Your task to perform on an android device: turn on showing notifications on the lock screen Image 0: 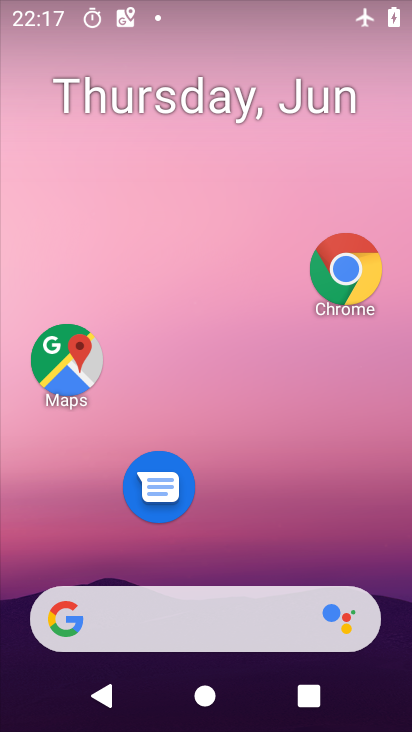
Step 0: drag from (228, 521) to (154, 35)
Your task to perform on an android device: turn on showing notifications on the lock screen Image 1: 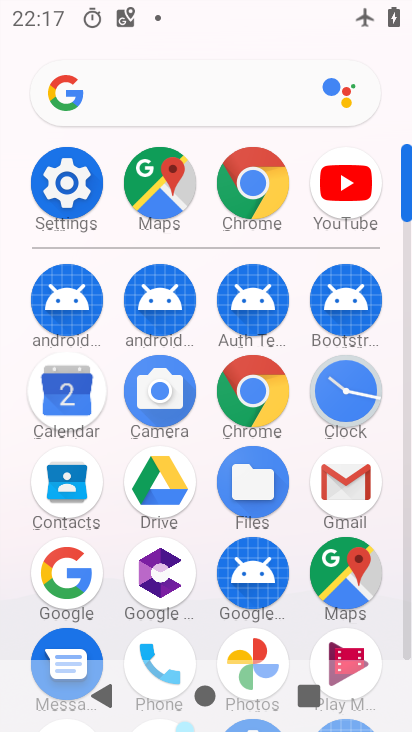
Step 1: click (72, 167)
Your task to perform on an android device: turn on showing notifications on the lock screen Image 2: 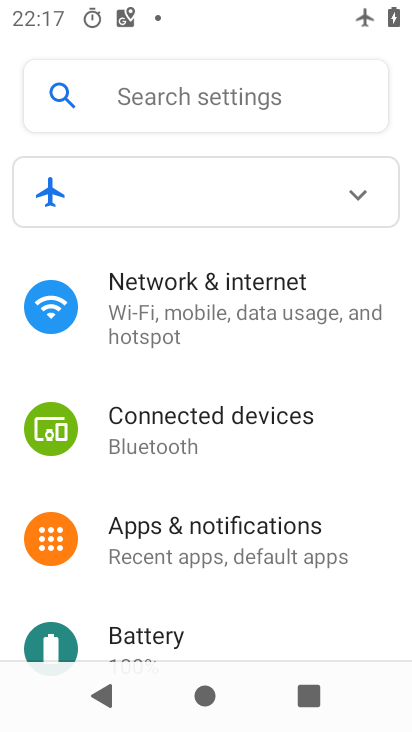
Step 2: click (176, 111)
Your task to perform on an android device: turn on showing notifications on the lock screen Image 3: 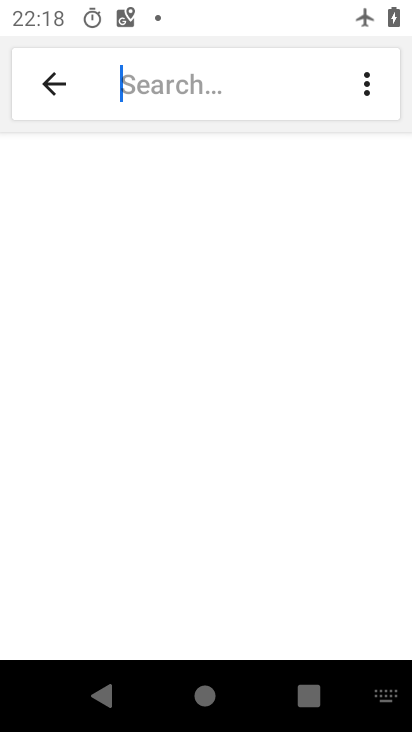
Step 3: click (57, 85)
Your task to perform on an android device: turn on showing notifications on the lock screen Image 4: 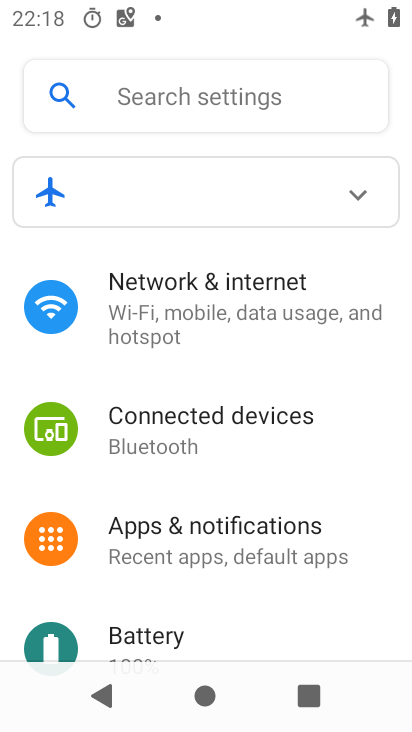
Step 4: drag from (213, 533) to (331, 57)
Your task to perform on an android device: turn on showing notifications on the lock screen Image 5: 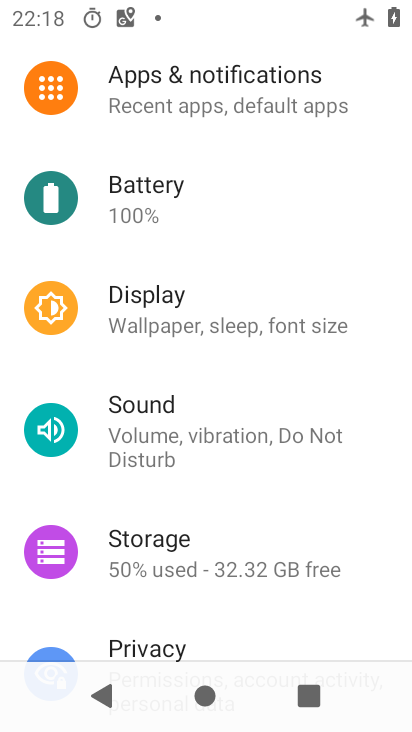
Step 5: click (235, 103)
Your task to perform on an android device: turn on showing notifications on the lock screen Image 6: 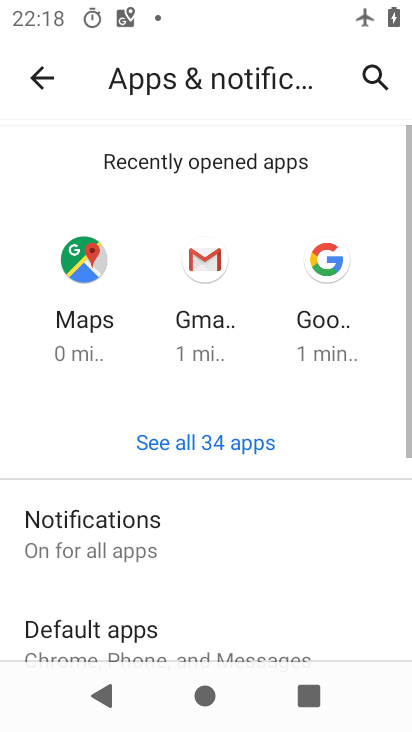
Step 6: drag from (191, 524) to (264, 273)
Your task to perform on an android device: turn on showing notifications on the lock screen Image 7: 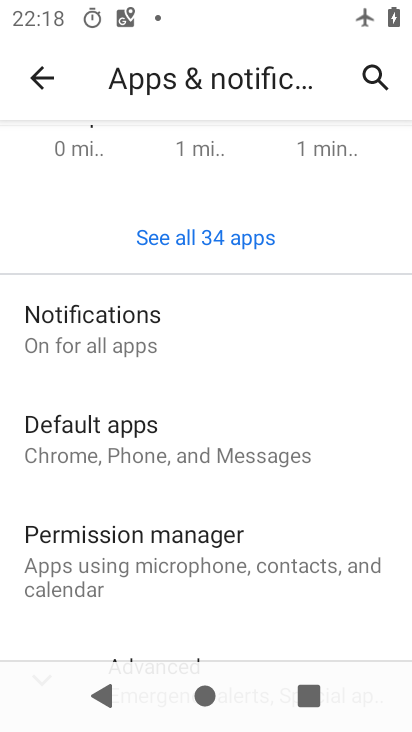
Step 7: click (158, 334)
Your task to perform on an android device: turn on showing notifications on the lock screen Image 8: 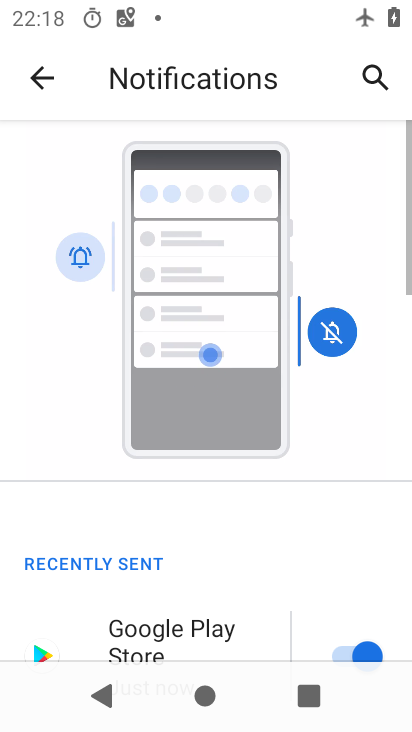
Step 8: drag from (218, 519) to (339, 68)
Your task to perform on an android device: turn on showing notifications on the lock screen Image 9: 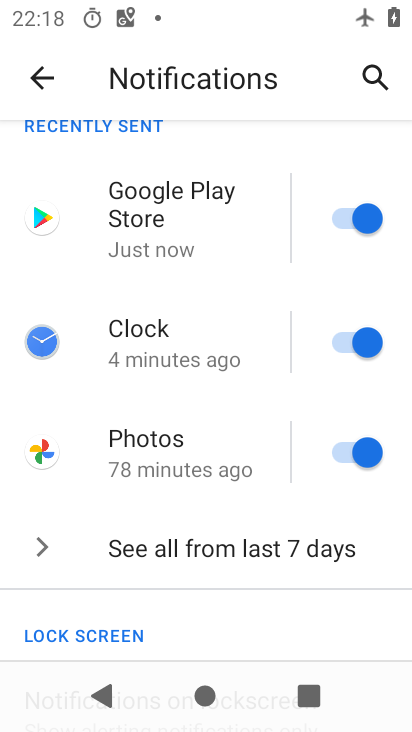
Step 9: drag from (226, 471) to (328, 11)
Your task to perform on an android device: turn on showing notifications on the lock screen Image 10: 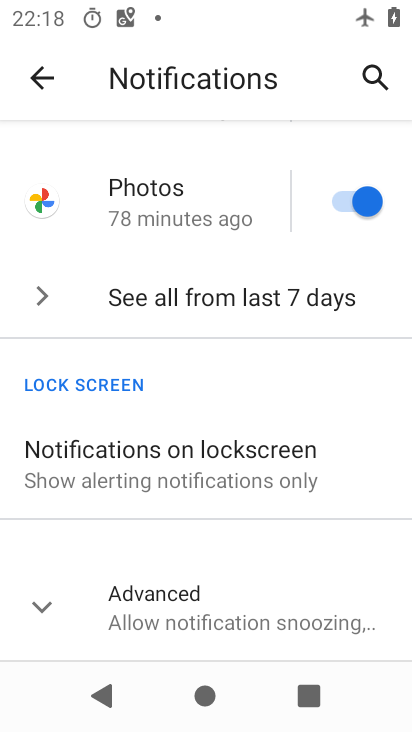
Step 10: click (234, 443)
Your task to perform on an android device: turn on showing notifications on the lock screen Image 11: 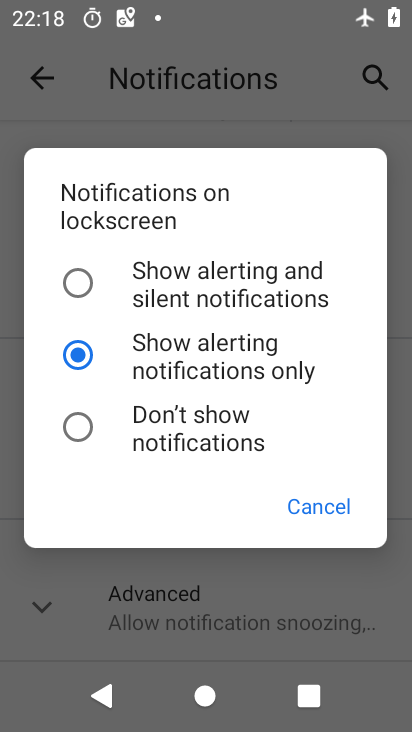
Step 11: click (112, 287)
Your task to perform on an android device: turn on showing notifications on the lock screen Image 12: 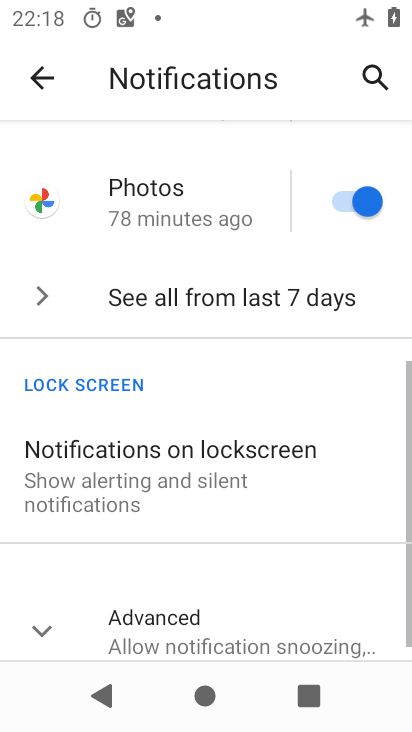
Step 12: task complete